Your task to perform on an android device: Open Google Chrome and click the shortcut for Amazon.com Image 0: 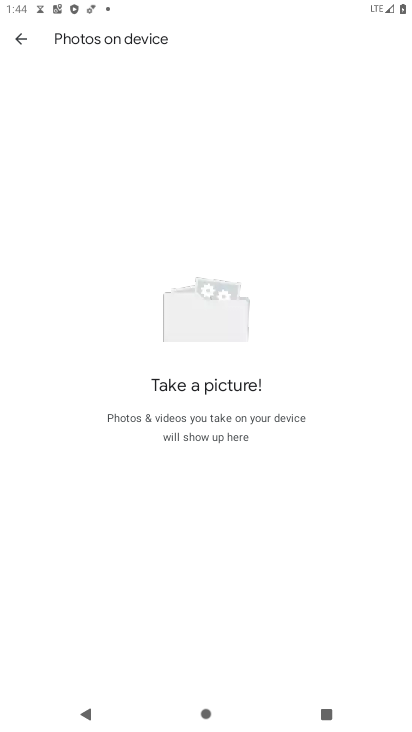
Step 0: press home button
Your task to perform on an android device: Open Google Chrome and click the shortcut for Amazon.com Image 1: 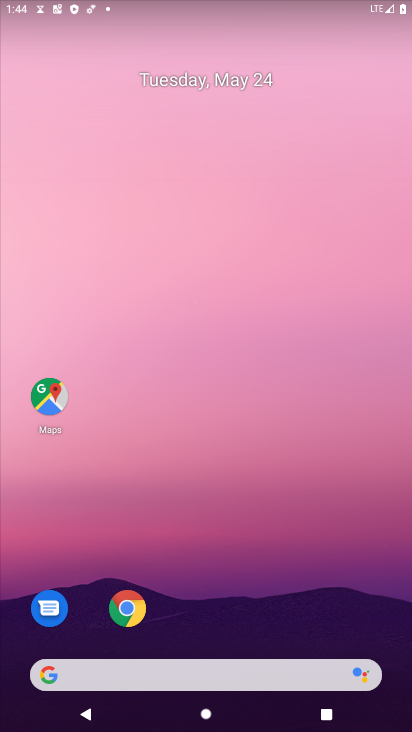
Step 1: click (131, 614)
Your task to perform on an android device: Open Google Chrome and click the shortcut for Amazon.com Image 2: 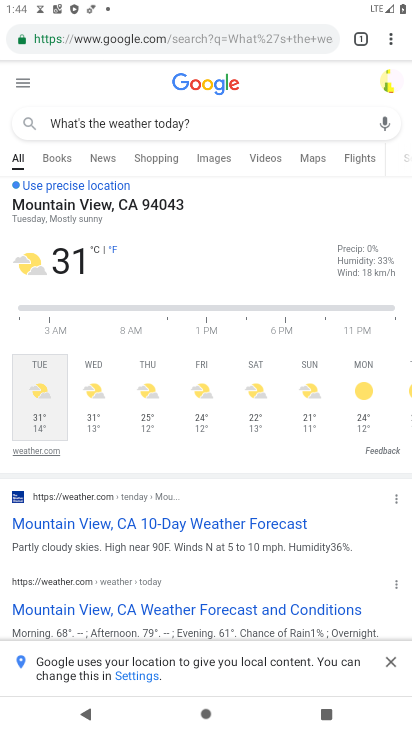
Step 2: click (363, 39)
Your task to perform on an android device: Open Google Chrome and click the shortcut for Amazon.com Image 3: 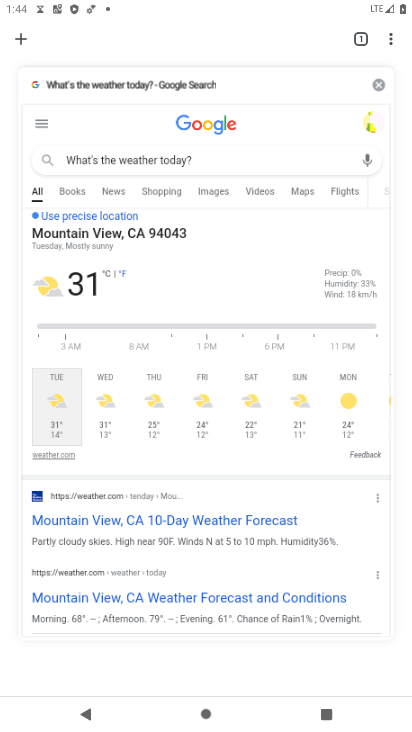
Step 3: click (21, 41)
Your task to perform on an android device: Open Google Chrome and click the shortcut for Amazon.com Image 4: 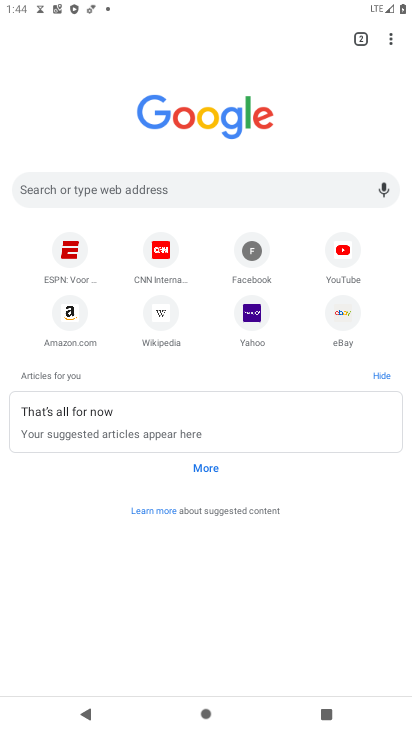
Step 4: click (73, 324)
Your task to perform on an android device: Open Google Chrome and click the shortcut for Amazon.com Image 5: 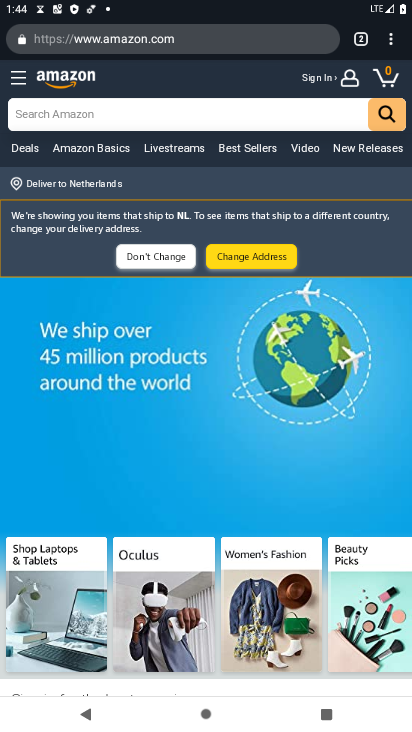
Step 5: task complete